Your task to perform on an android device: choose inbox layout in the gmail app Image 0: 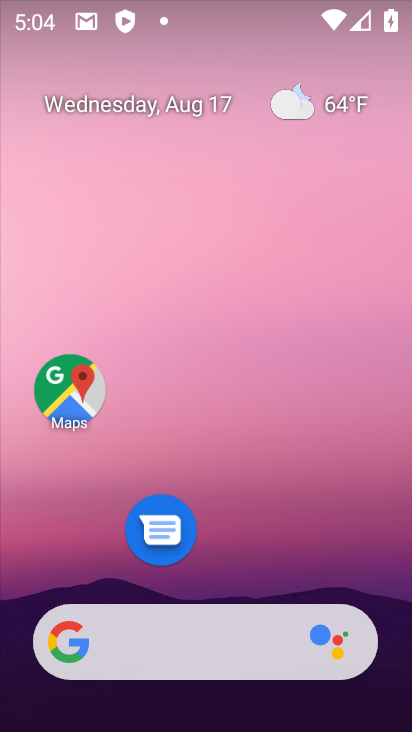
Step 0: press home button
Your task to perform on an android device: choose inbox layout in the gmail app Image 1: 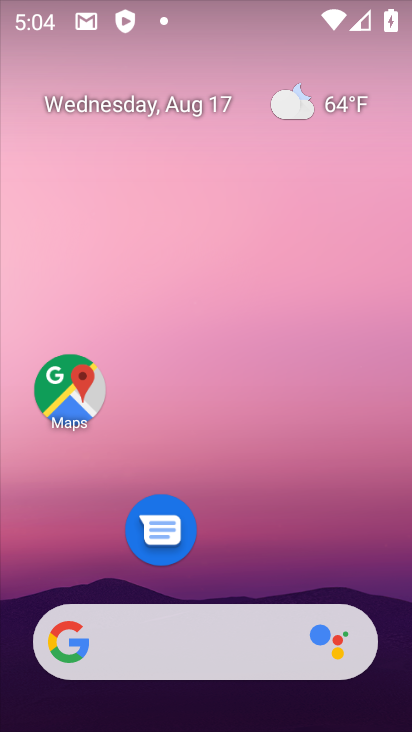
Step 1: drag from (204, 510) to (185, 103)
Your task to perform on an android device: choose inbox layout in the gmail app Image 2: 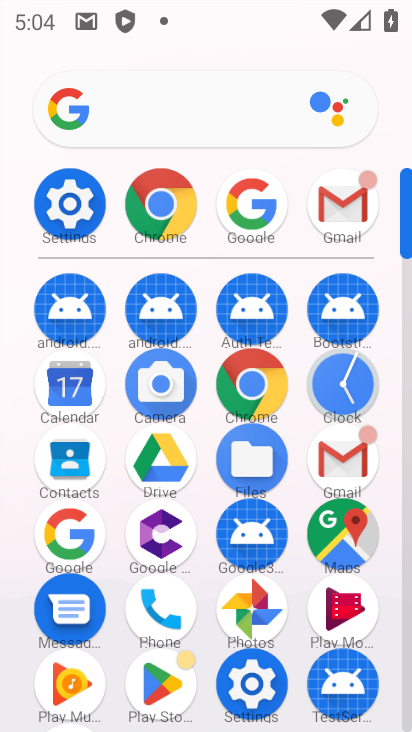
Step 2: click (339, 203)
Your task to perform on an android device: choose inbox layout in the gmail app Image 3: 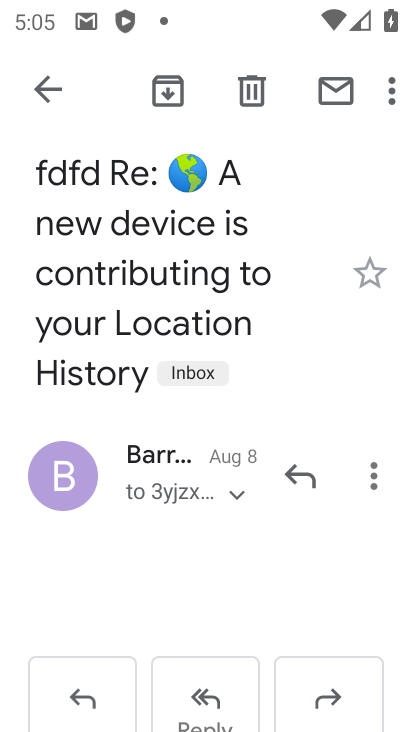
Step 3: click (46, 87)
Your task to perform on an android device: choose inbox layout in the gmail app Image 4: 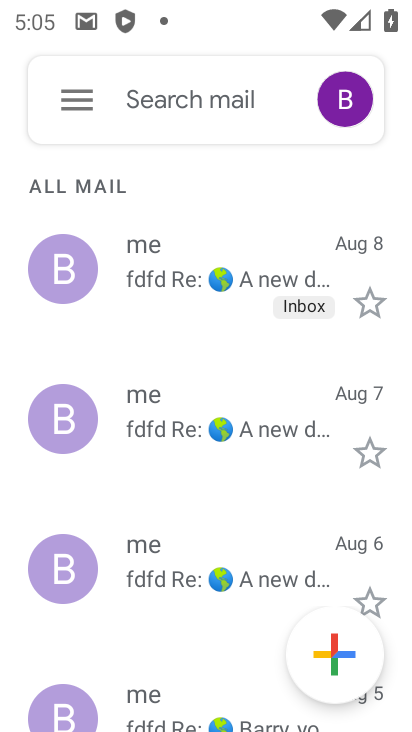
Step 4: click (72, 99)
Your task to perform on an android device: choose inbox layout in the gmail app Image 5: 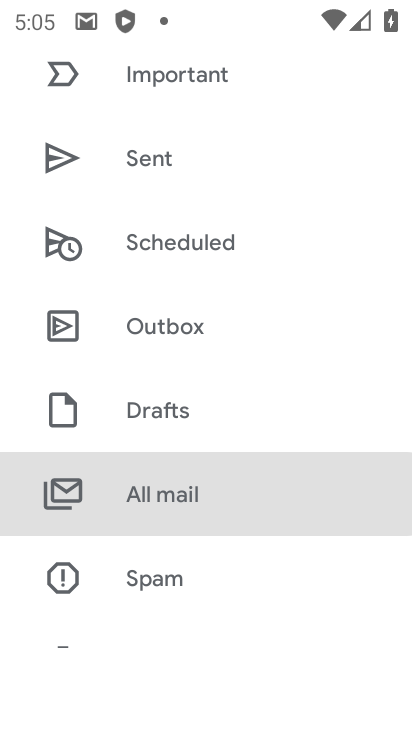
Step 5: drag from (157, 532) to (226, 114)
Your task to perform on an android device: choose inbox layout in the gmail app Image 6: 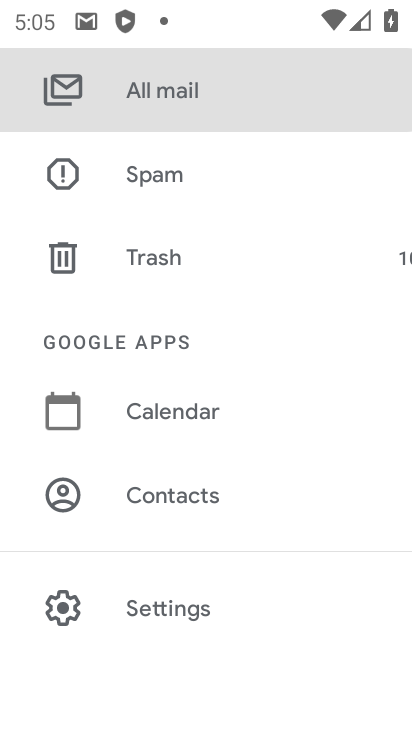
Step 6: click (201, 355)
Your task to perform on an android device: choose inbox layout in the gmail app Image 7: 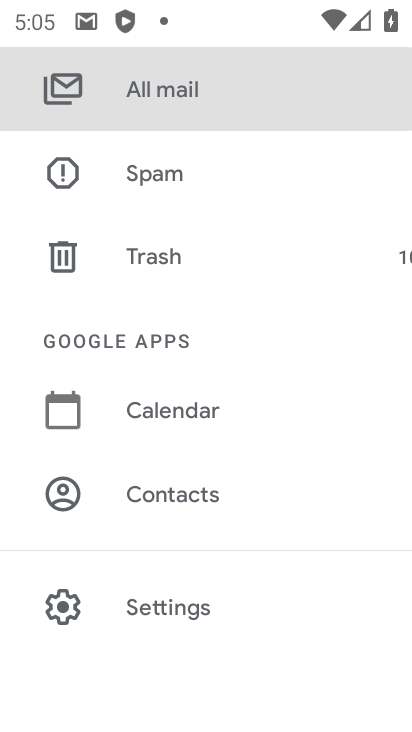
Step 7: click (156, 610)
Your task to perform on an android device: choose inbox layout in the gmail app Image 8: 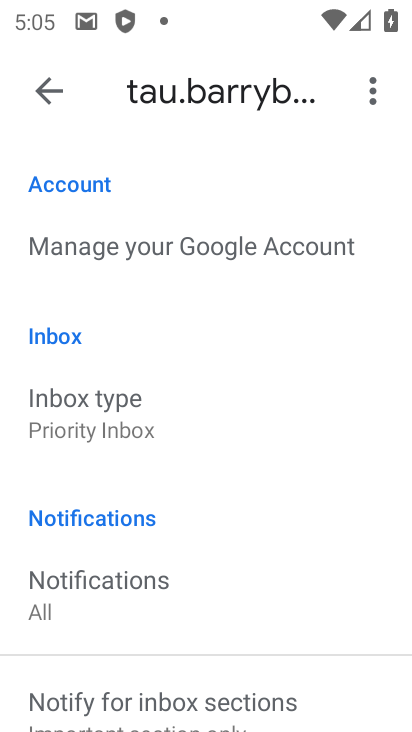
Step 8: click (116, 421)
Your task to perform on an android device: choose inbox layout in the gmail app Image 9: 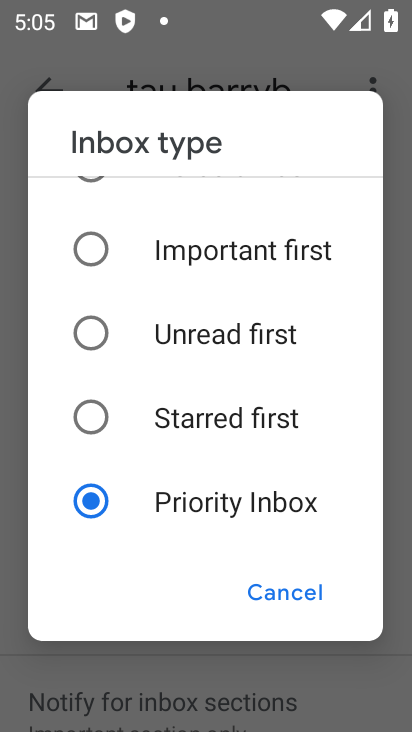
Step 9: click (90, 255)
Your task to perform on an android device: choose inbox layout in the gmail app Image 10: 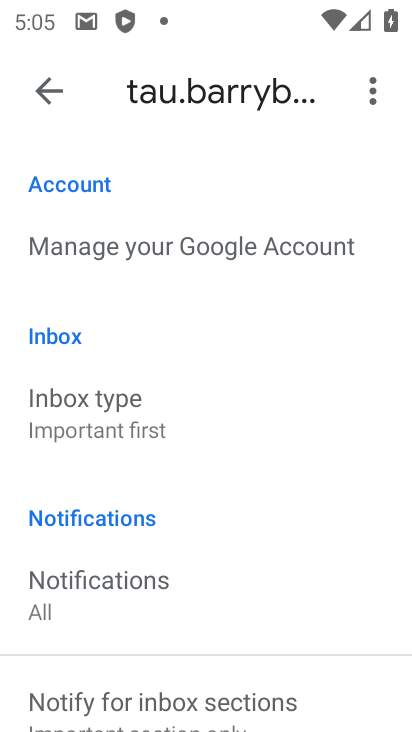
Step 10: task complete